Your task to perform on an android device: Go to accessibility settings Image 0: 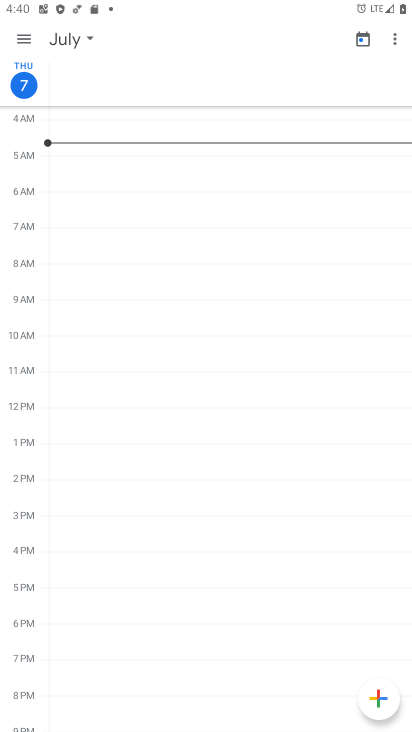
Step 0: press home button
Your task to perform on an android device: Go to accessibility settings Image 1: 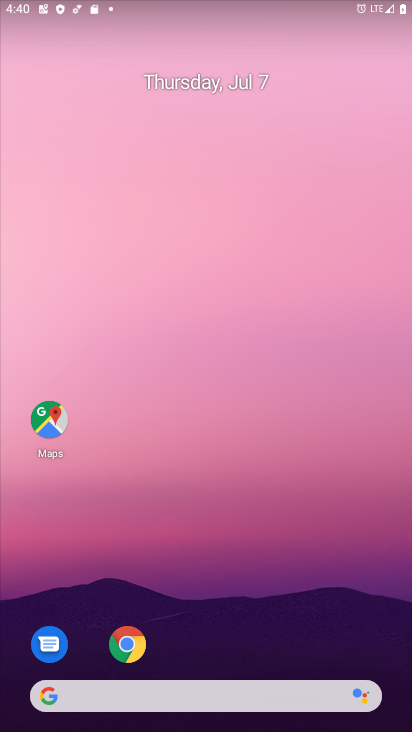
Step 1: drag from (229, 618) to (181, 67)
Your task to perform on an android device: Go to accessibility settings Image 2: 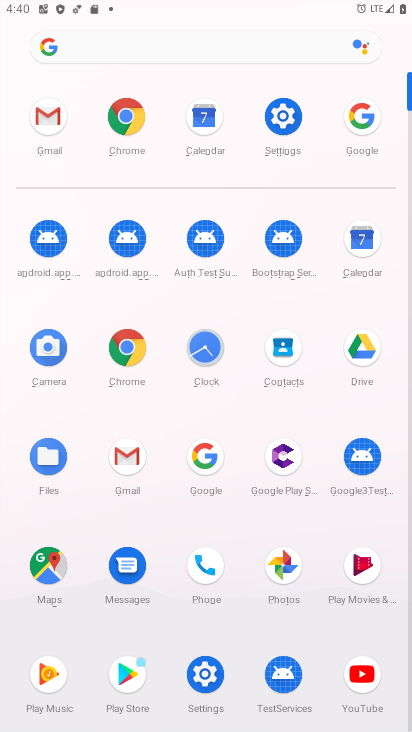
Step 2: click (284, 115)
Your task to perform on an android device: Go to accessibility settings Image 3: 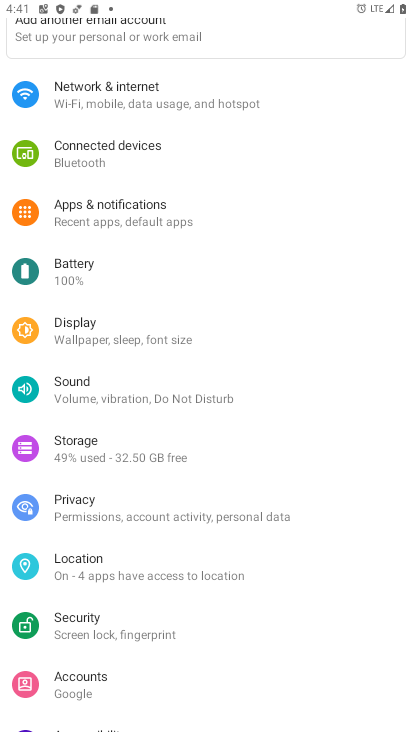
Step 3: drag from (106, 597) to (155, 480)
Your task to perform on an android device: Go to accessibility settings Image 4: 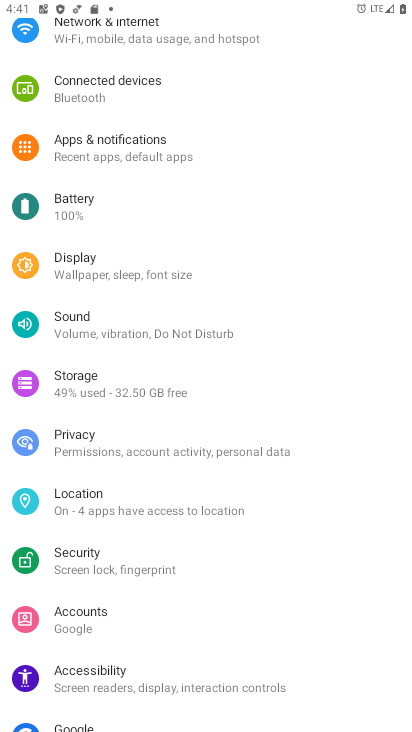
Step 4: click (94, 672)
Your task to perform on an android device: Go to accessibility settings Image 5: 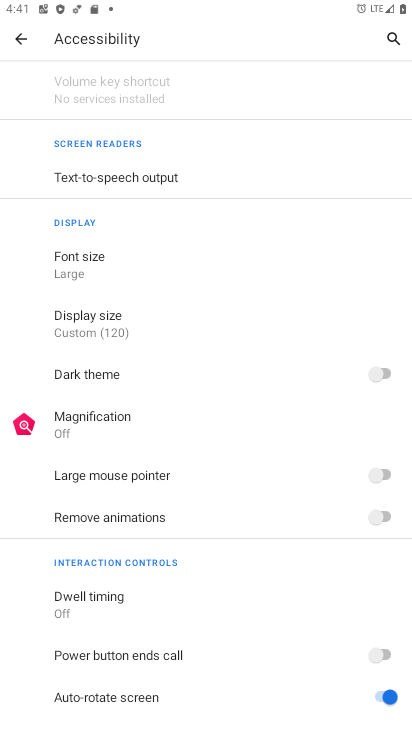
Step 5: task complete